Your task to perform on an android device: turn notification dots off Image 0: 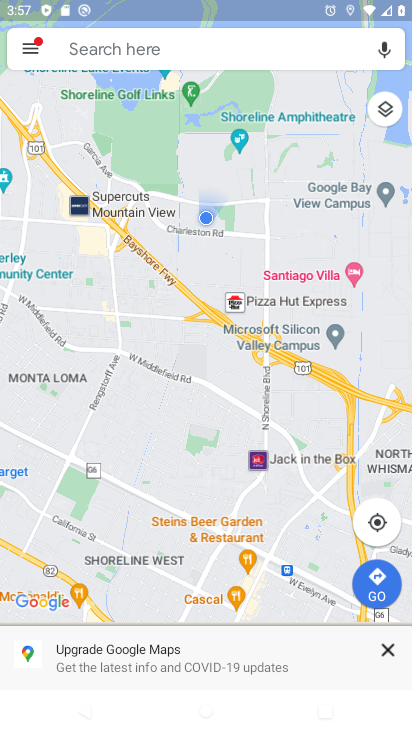
Step 0: press home button
Your task to perform on an android device: turn notification dots off Image 1: 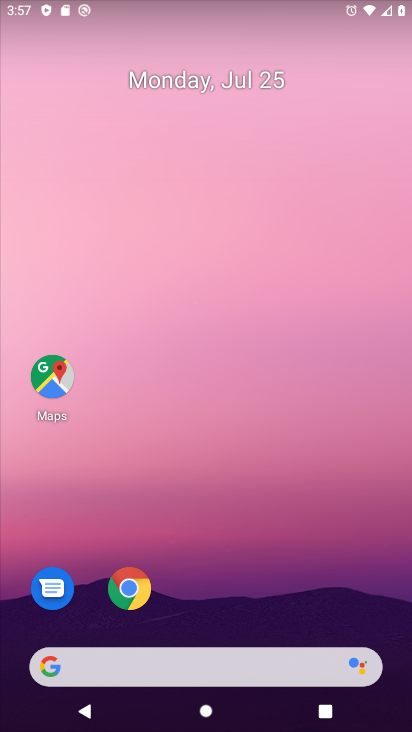
Step 1: drag from (235, 722) to (234, 24)
Your task to perform on an android device: turn notification dots off Image 2: 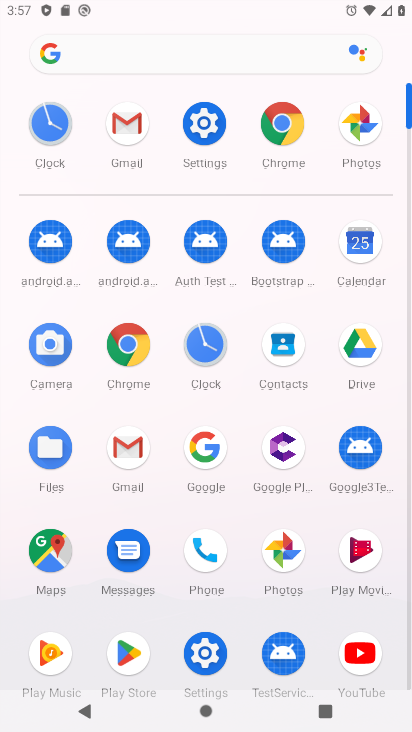
Step 2: click (203, 125)
Your task to perform on an android device: turn notification dots off Image 3: 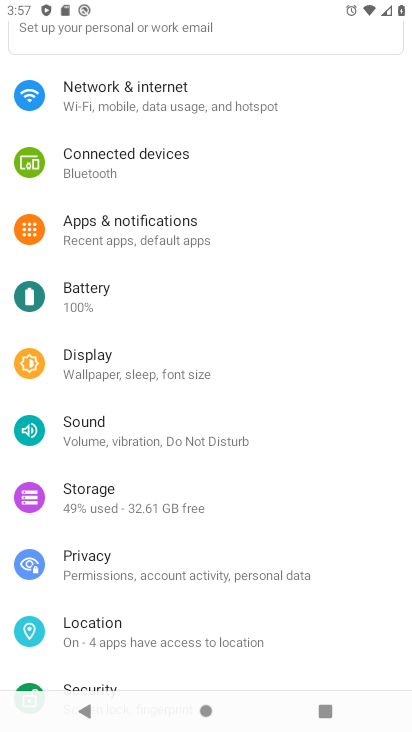
Step 3: click (158, 224)
Your task to perform on an android device: turn notification dots off Image 4: 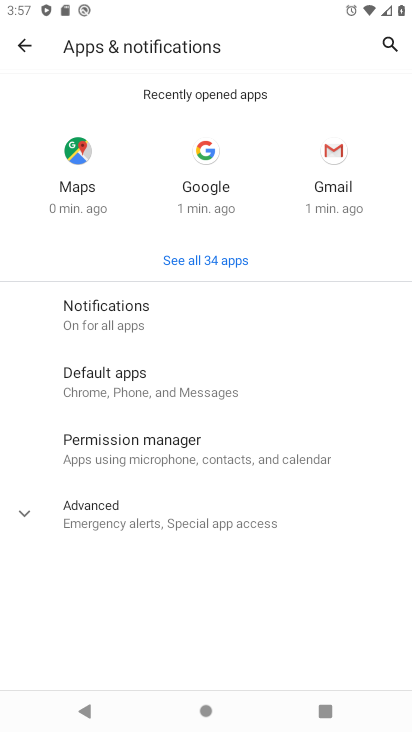
Step 4: click (124, 316)
Your task to perform on an android device: turn notification dots off Image 5: 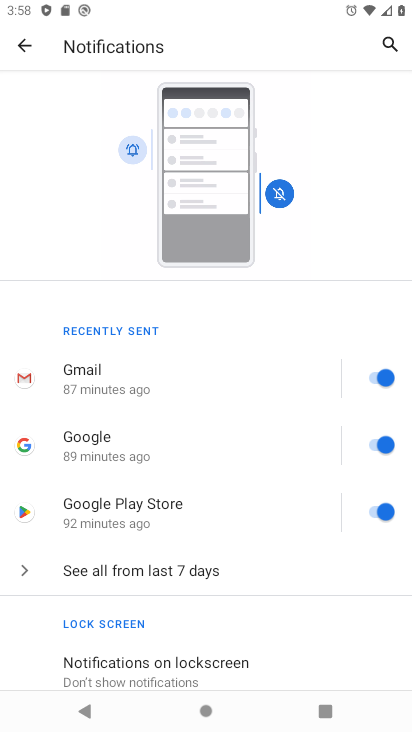
Step 5: drag from (251, 671) to (266, 309)
Your task to perform on an android device: turn notification dots off Image 6: 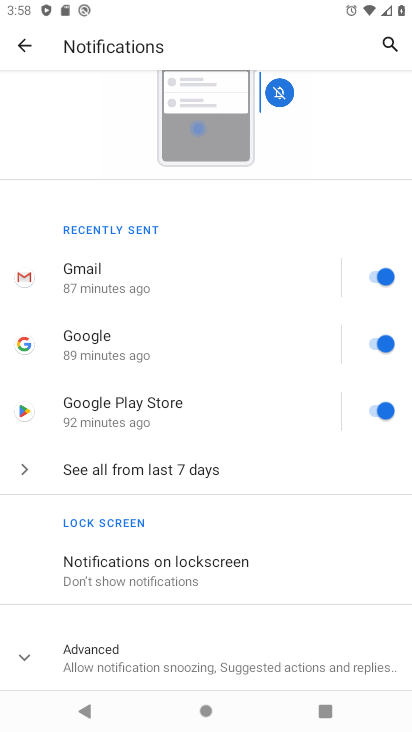
Step 6: click (81, 654)
Your task to perform on an android device: turn notification dots off Image 7: 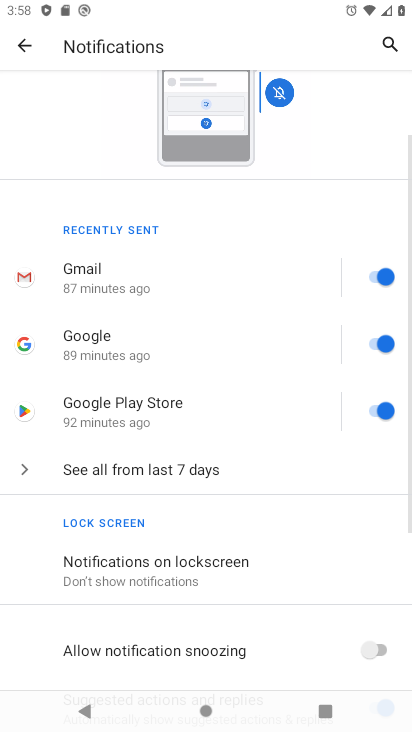
Step 7: task complete